Your task to perform on an android device: all mails in gmail Image 0: 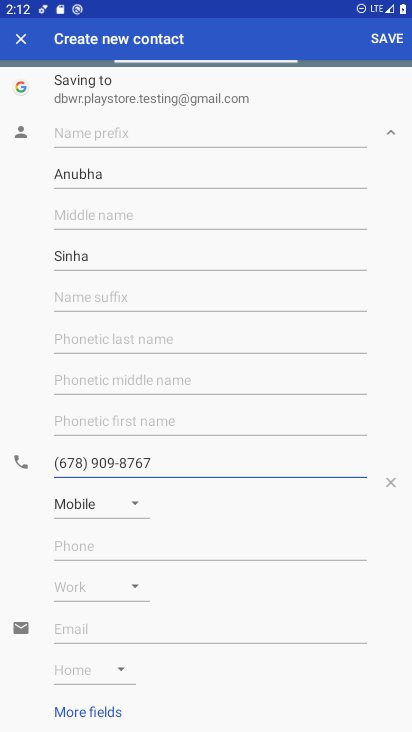
Step 0: press home button
Your task to perform on an android device: all mails in gmail Image 1: 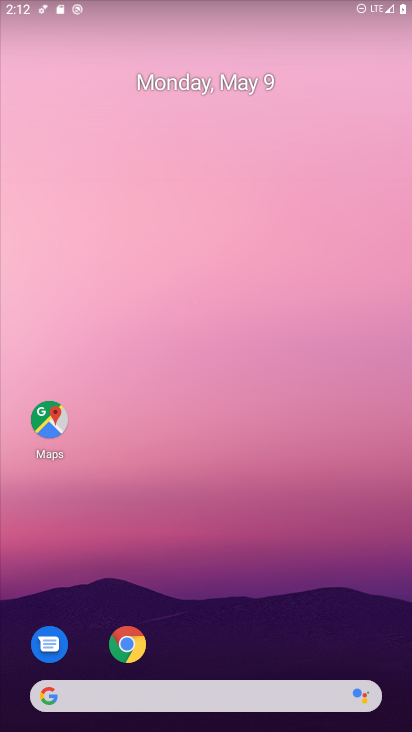
Step 1: drag from (245, 603) to (154, 182)
Your task to perform on an android device: all mails in gmail Image 2: 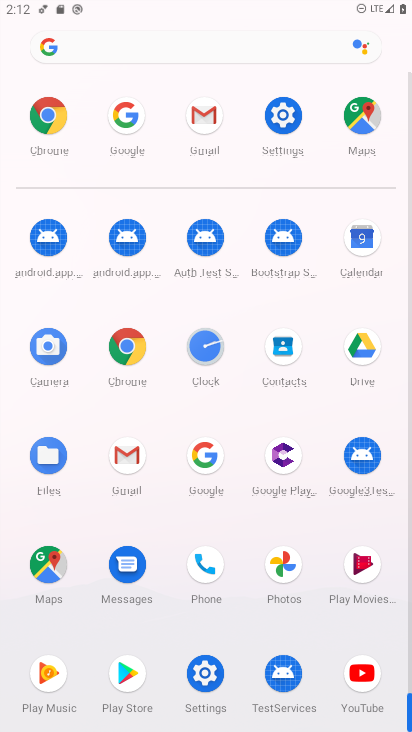
Step 2: click (203, 142)
Your task to perform on an android device: all mails in gmail Image 3: 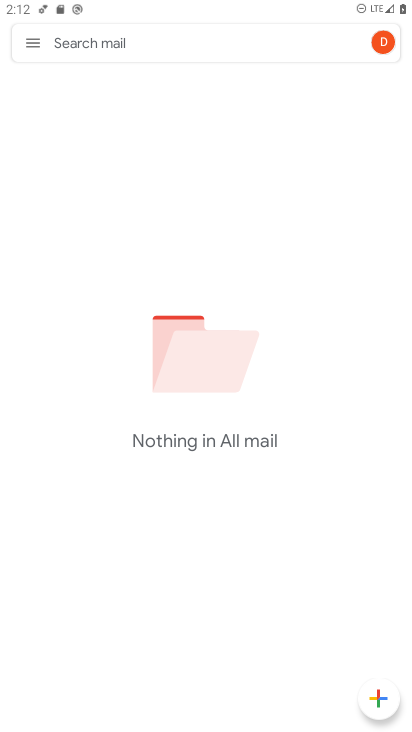
Step 3: task complete